Your task to perform on an android device: allow notifications from all sites in the chrome app Image 0: 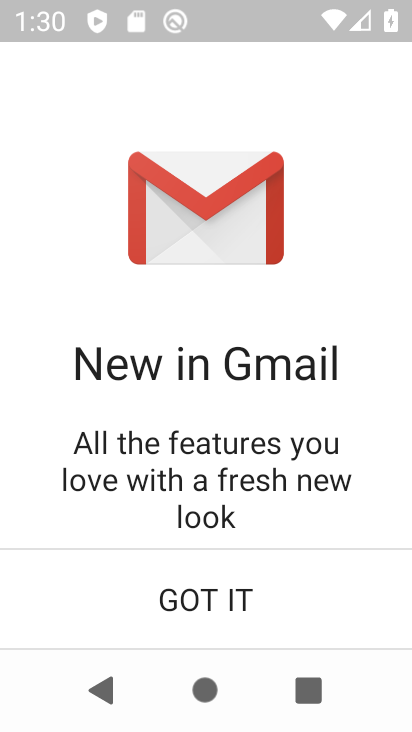
Step 0: press home button
Your task to perform on an android device: allow notifications from all sites in the chrome app Image 1: 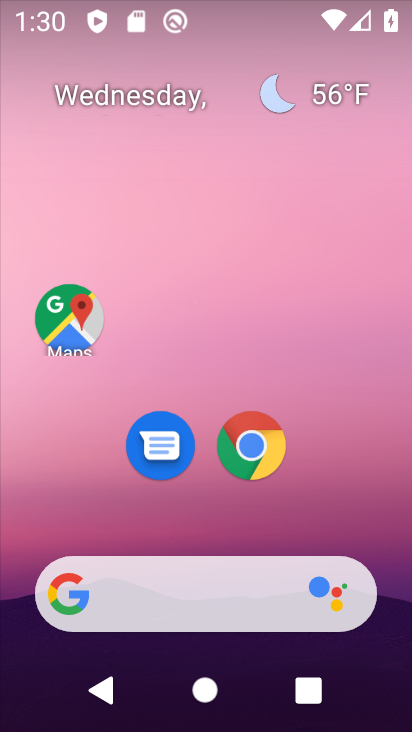
Step 1: drag from (228, 523) to (332, 8)
Your task to perform on an android device: allow notifications from all sites in the chrome app Image 2: 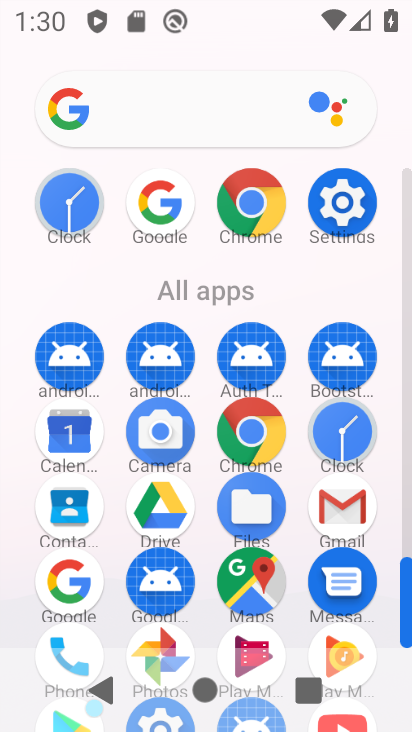
Step 2: click (237, 432)
Your task to perform on an android device: allow notifications from all sites in the chrome app Image 3: 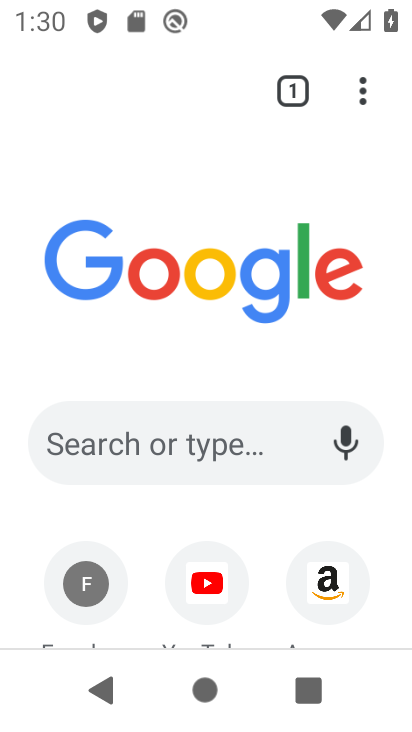
Step 3: click (368, 94)
Your task to perform on an android device: allow notifications from all sites in the chrome app Image 4: 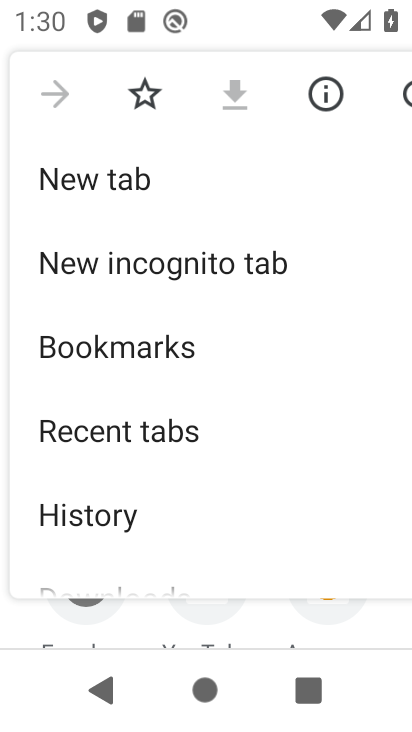
Step 4: drag from (246, 518) to (228, 135)
Your task to perform on an android device: allow notifications from all sites in the chrome app Image 5: 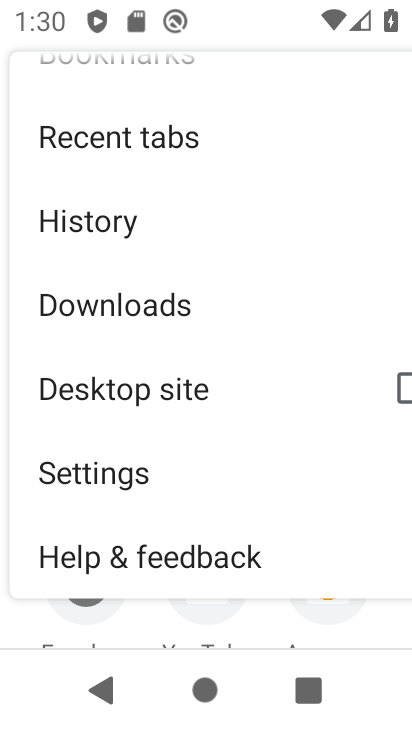
Step 5: click (75, 462)
Your task to perform on an android device: allow notifications from all sites in the chrome app Image 6: 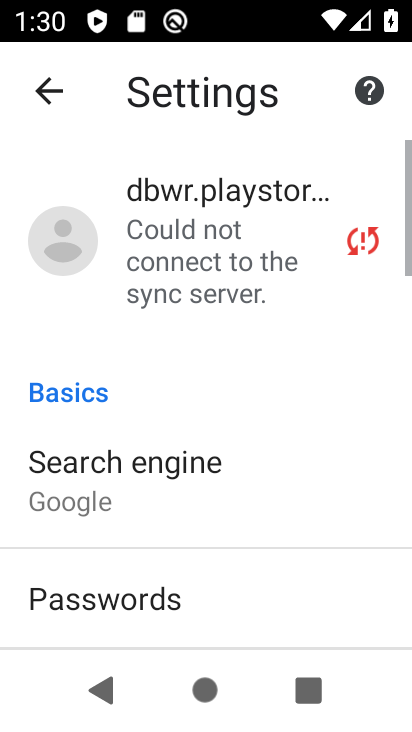
Step 6: drag from (107, 532) to (41, 88)
Your task to perform on an android device: allow notifications from all sites in the chrome app Image 7: 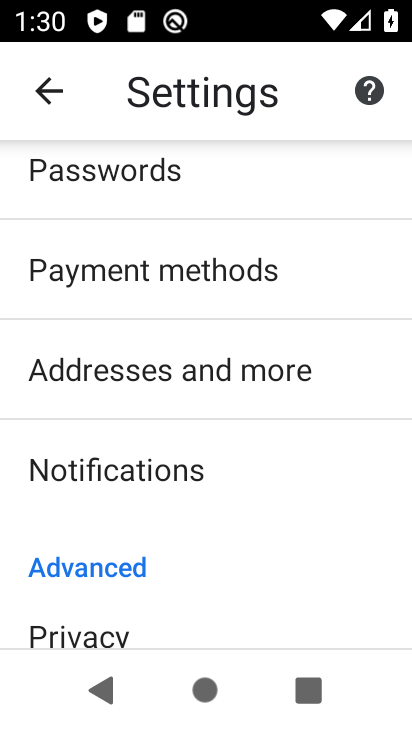
Step 7: click (121, 487)
Your task to perform on an android device: allow notifications from all sites in the chrome app Image 8: 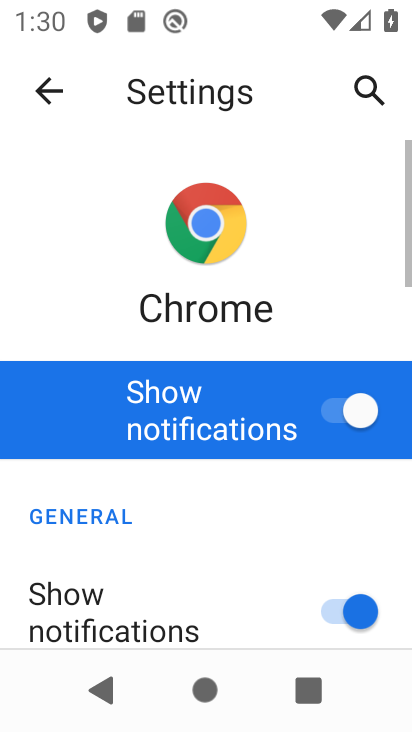
Step 8: click (39, 87)
Your task to perform on an android device: allow notifications from all sites in the chrome app Image 9: 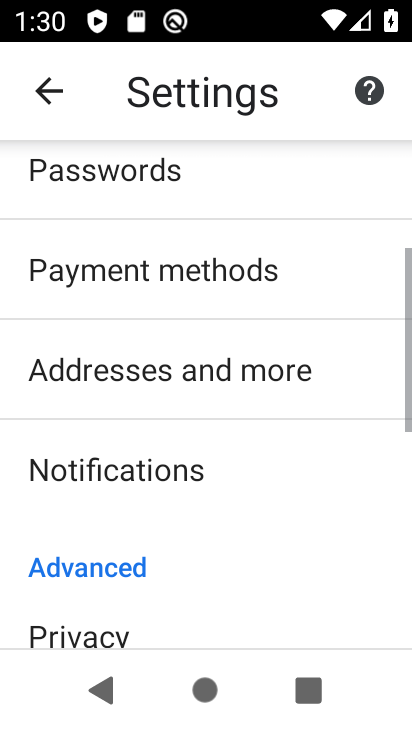
Step 9: drag from (189, 562) to (135, 100)
Your task to perform on an android device: allow notifications from all sites in the chrome app Image 10: 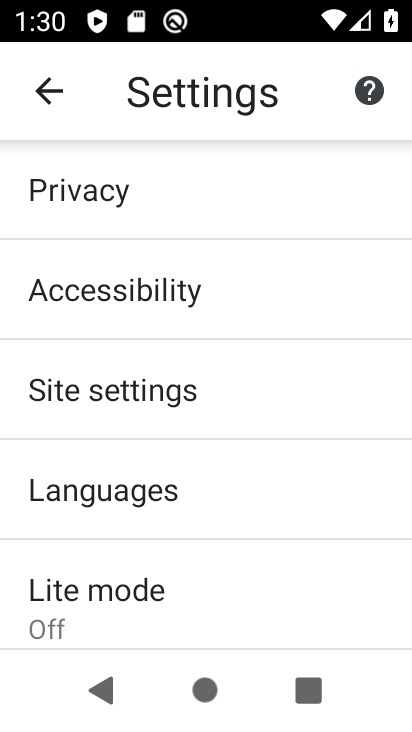
Step 10: click (85, 399)
Your task to perform on an android device: allow notifications from all sites in the chrome app Image 11: 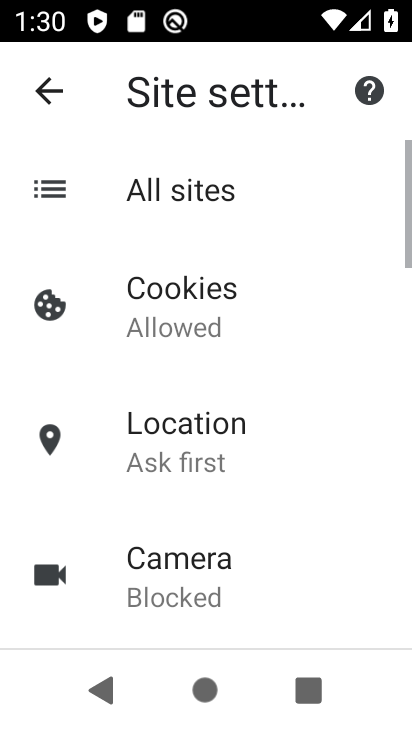
Step 11: drag from (134, 516) to (98, 100)
Your task to perform on an android device: allow notifications from all sites in the chrome app Image 12: 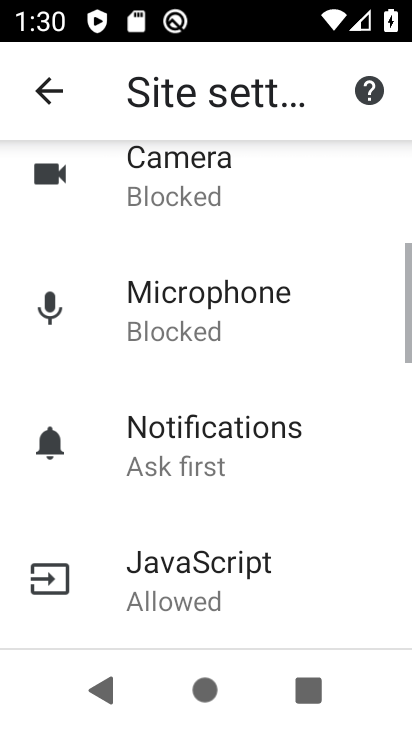
Step 12: click (127, 412)
Your task to perform on an android device: allow notifications from all sites in the chrome app Image 13: 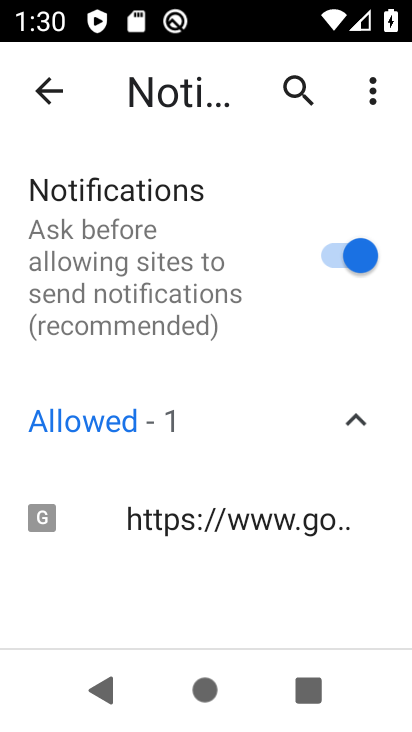
Step 13: task complete